Your task to perform on an android device: What's the weather today? Image 0: 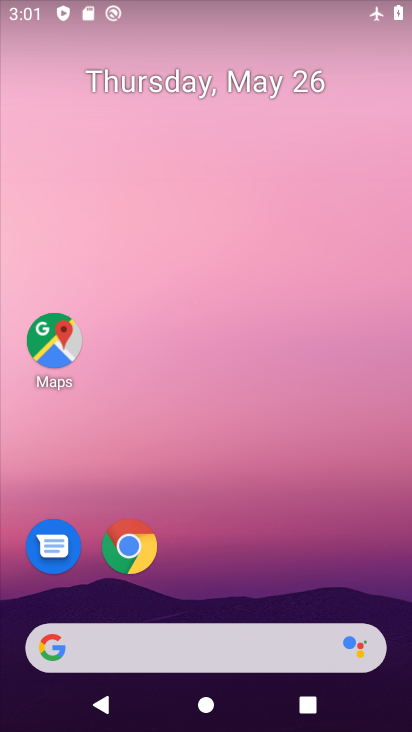
Step 0: click (191, 662)
Your task to perform on an android device: What's the weather today? Image 1: 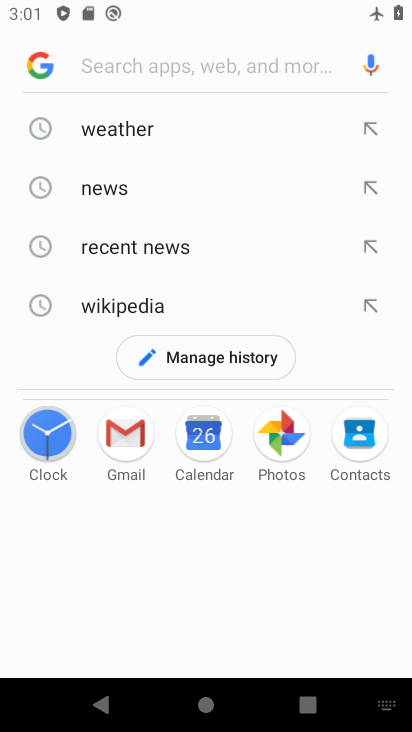
Step 1: click (117, 133)
Your task to perform on an android device: What's the weather today? Image 2: 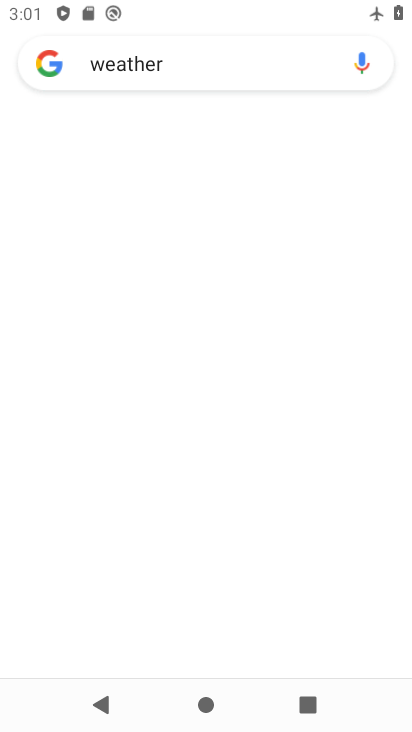
Step 2: drag from (284, 13) to (288, 321)
Your task to perform on an android device: What's the weather today? Image 3: 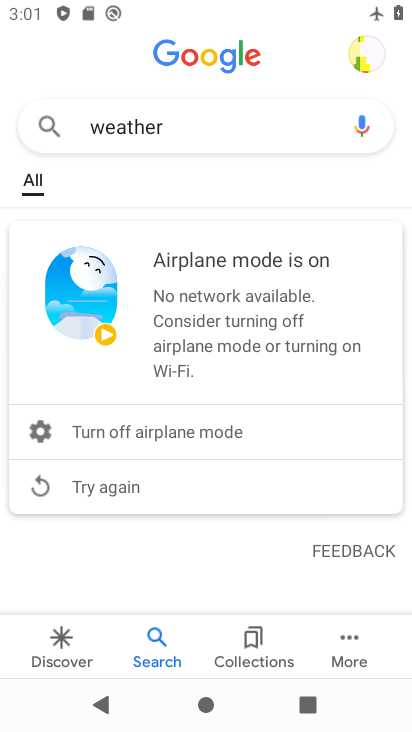
Step 3: drag from (373, 132) to (376, 166)
Your task to perform on an android device: What's the weather today? Image 4: 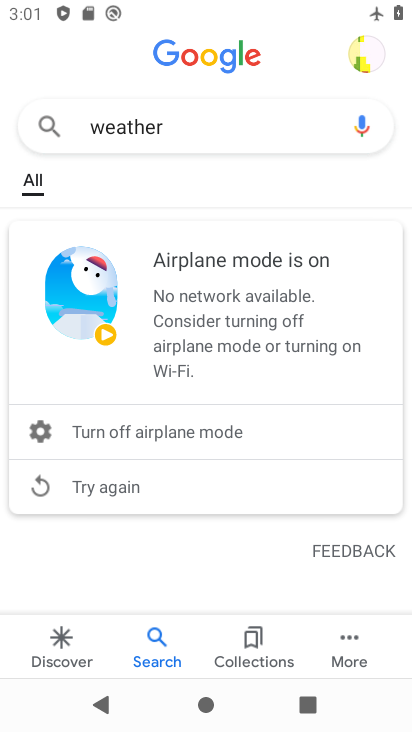
Step 4: drag from (365, 9) to (371, 244)
Your task to perform on an android device: What's the weather today? Image 5: 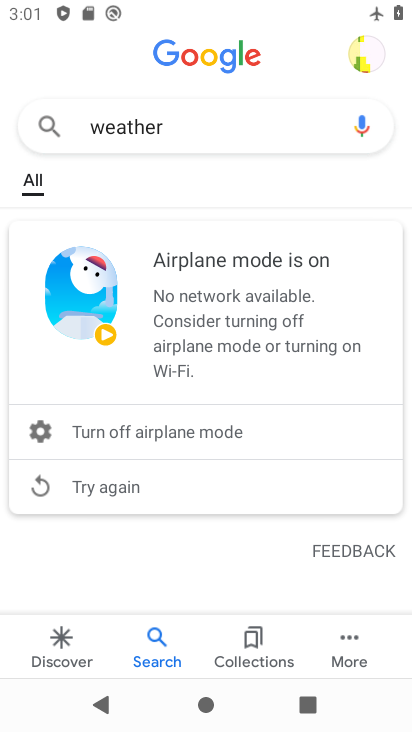
Step 5: drag from (387, 7) to (357, 347)
Your task to perform on an android device: What's the weather today? Image 6: 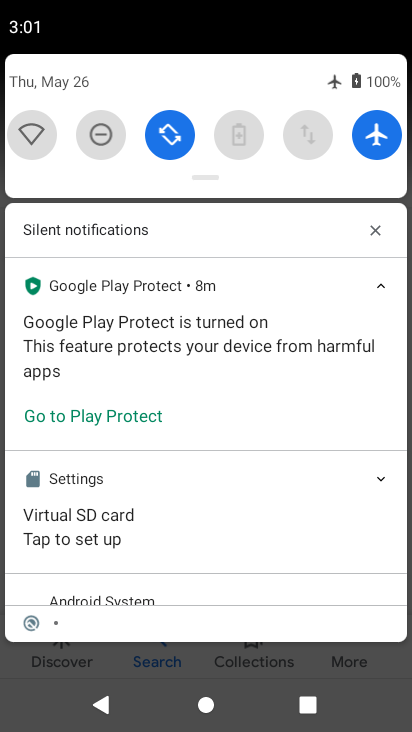
Step 6: click (374, 135)
Your task to perform on an android device: What's the weather today? Image 7: 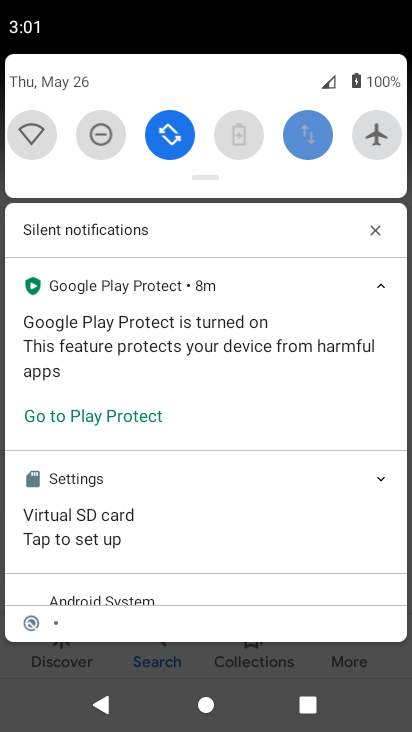
Step 7: click (23, 660)
Your task to perform on an android device: What's the weather today? Image 8: 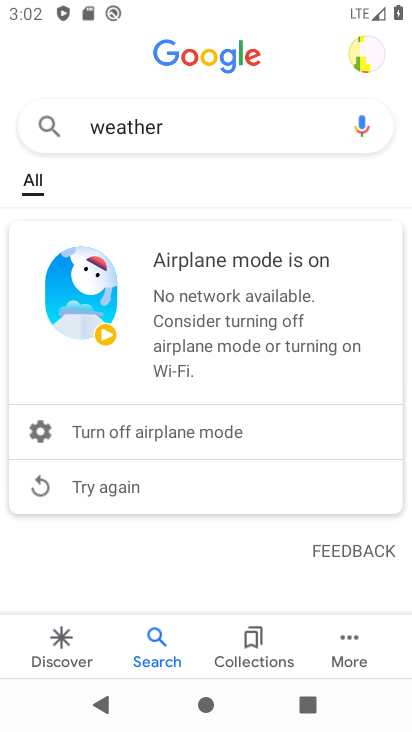
Step 8: click (57, 482)
Your task to perform on an android device: What's the weather today? Image 9: 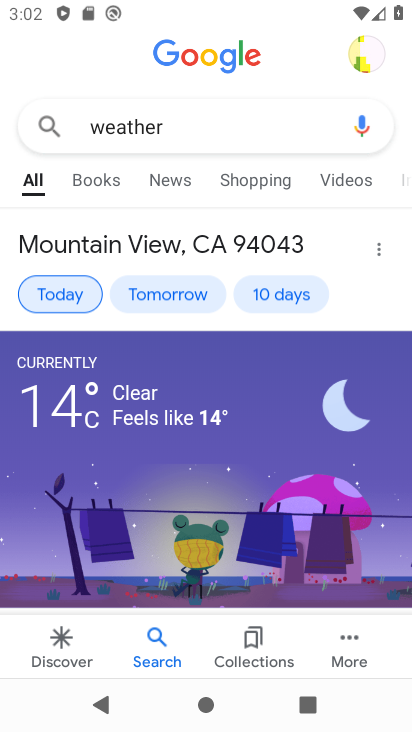
Step 9: task complete